Your task to perform on an android device: Do I have any events this weekend? Image 0: 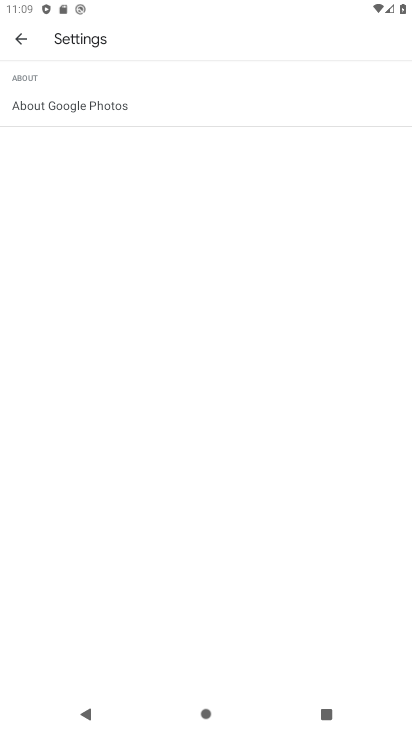
Step 0: drag from (184, 631) to (220, 43)
Your task to perform on an android device: Do I have any events this weekend? Image 1: 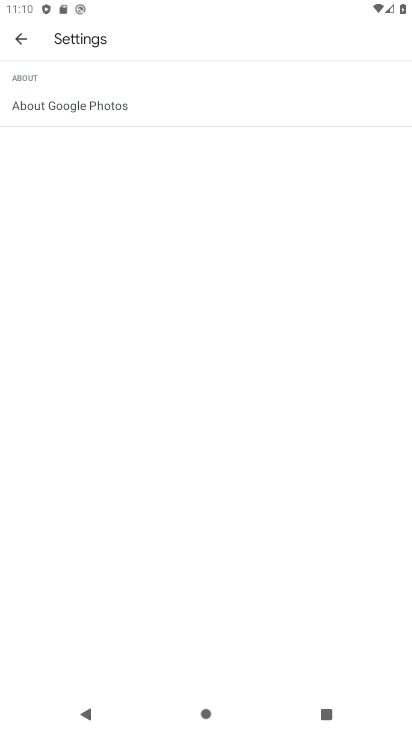
Step 1: press home button
Your task to perform on an android device: Do I have any events this weekend? Image 2: 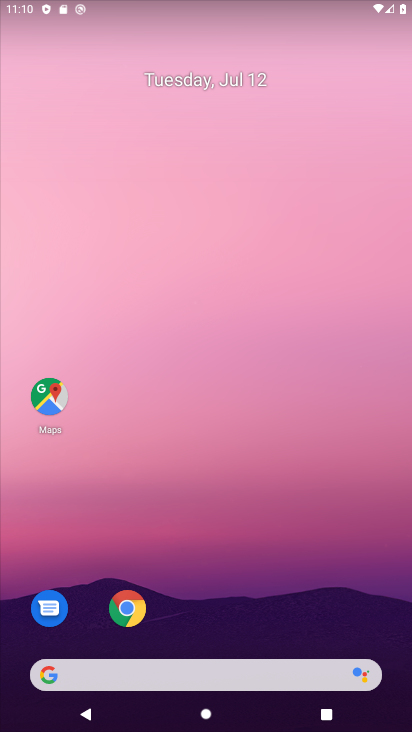
Step 2: click (164, 76)
Your task to perform on an android device: Do I have any events this weekend? Image 3: 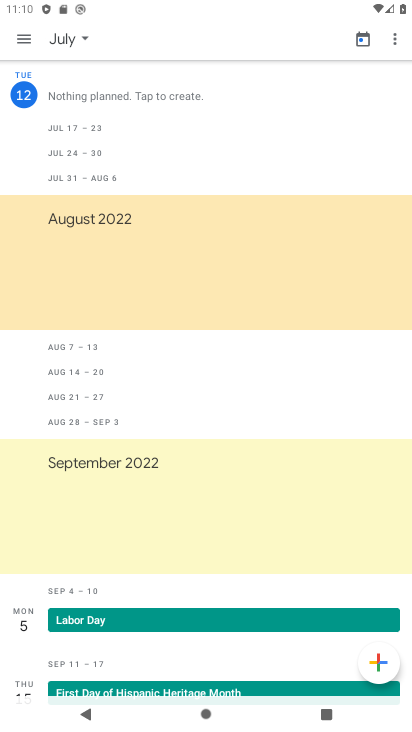
Step 3: click (72, 35)
Your task to perform on an android device: Do I have any events this weekend? Image 4: 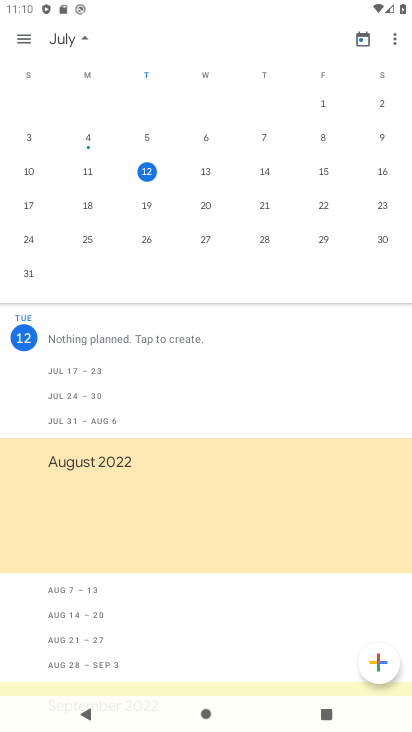
Step 4: click (369, 180)
Your task to perform on an android device: Do I have any events this weekend? Image 5: 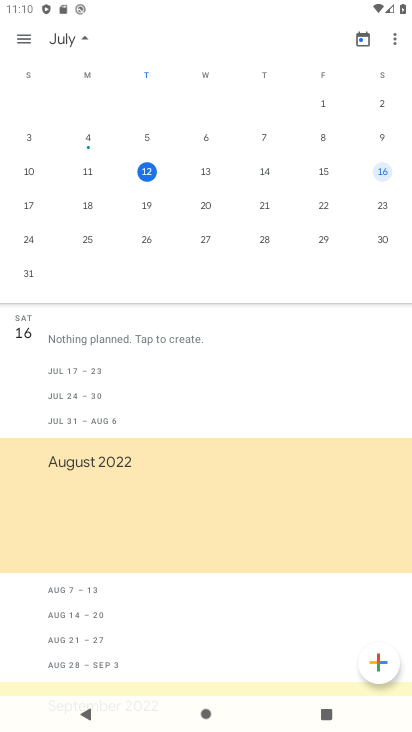
Step 5: task complete